Your task to perform on an android device: Go to accessibility settings Image 0: 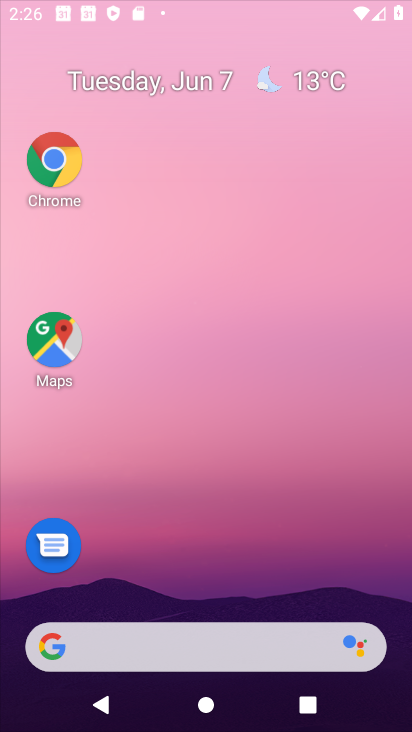
Step 0: click (292, 6)
Your task to perform on an android device: Go to accessibility settings Image 1: 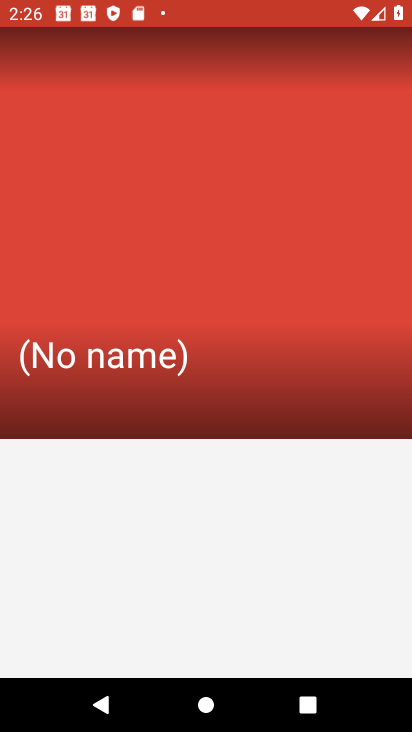
Step 1: drag from (184, 574) to (250, 18)
Your task to perform on an android device: Go to accessibility settings Image 2: 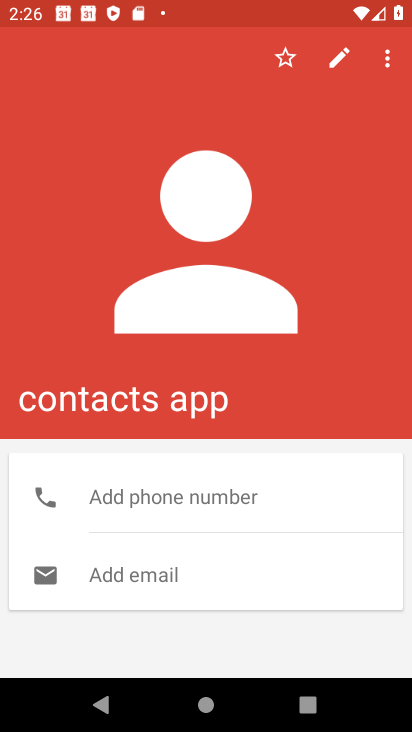
Step 2: press home button
Your task to perform on an android device: Go to accessibility settings Image 3: 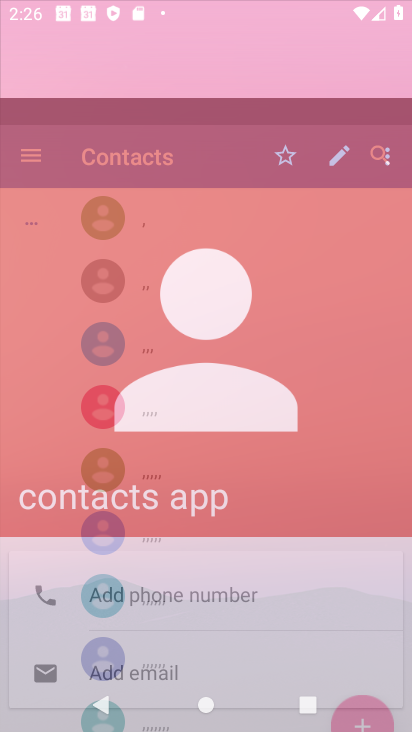
Step 3: drag from (189, 470) to (238, 53)
Your task to perform on an android device: Go to accessibility settings Image 4: 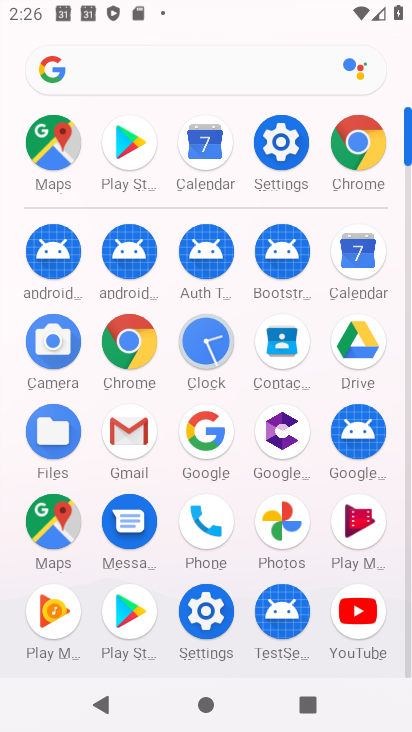
Step 4: click (281, 145)
Your task to perform on an android device: Go to accessibility settings Image 5: 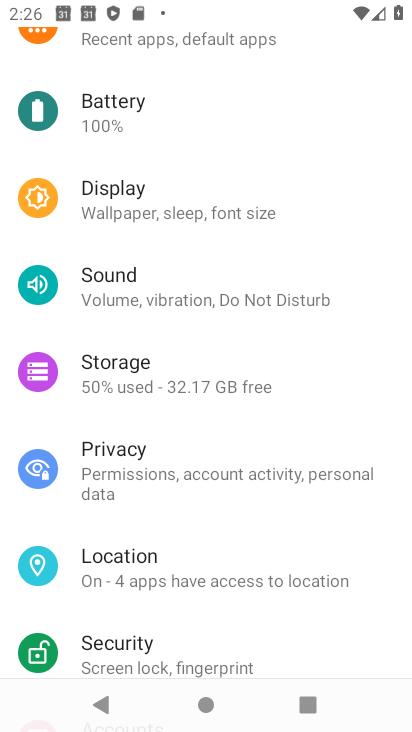
Step 5: drag from (207, 524) to (270, 77)
Your task to perform on an android device: Go to accessibility settings Image 6: 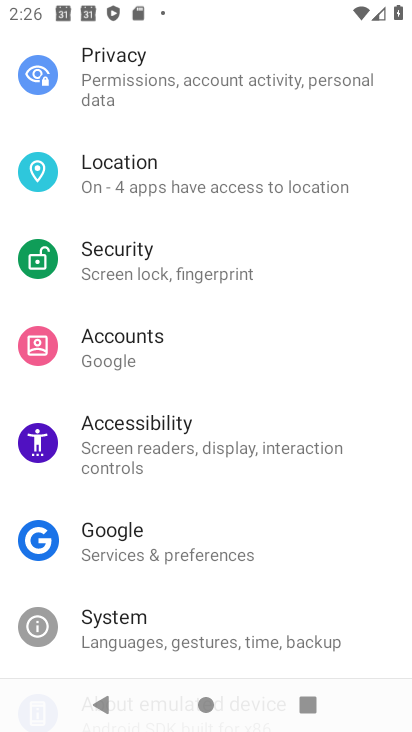
Step 6: click (172, 421)
Your task to perform on an android device: Go to accessibility settings Image 7: 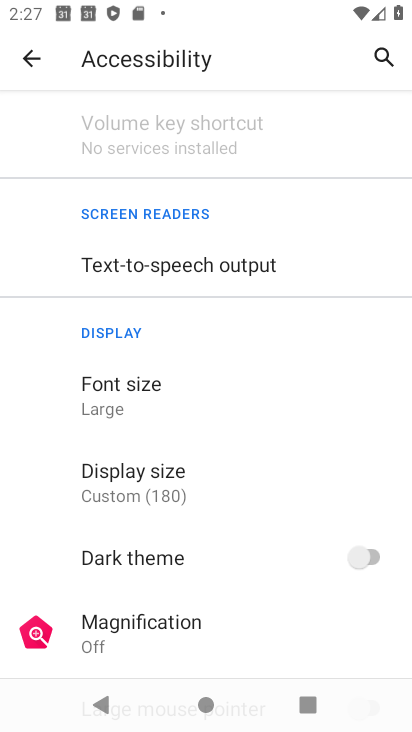
Step 7: task complete